Your task to perform on an android device: find which apps use the phone's location Image 0: 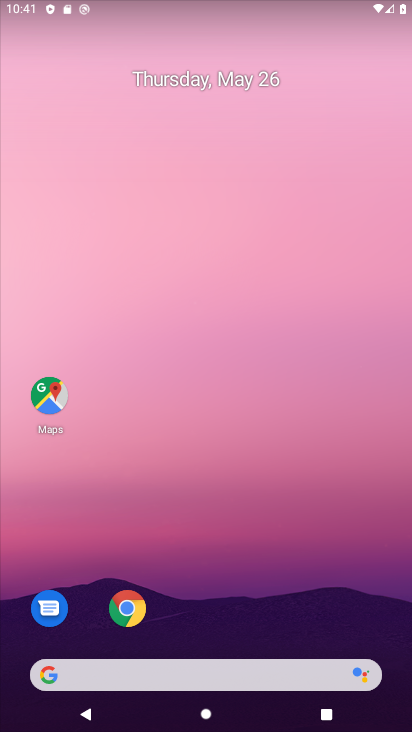
Step 0: drag from (270, 481) to (271, 0)
Your task to perform on an android device: find which apps use the phone's location Image 1: 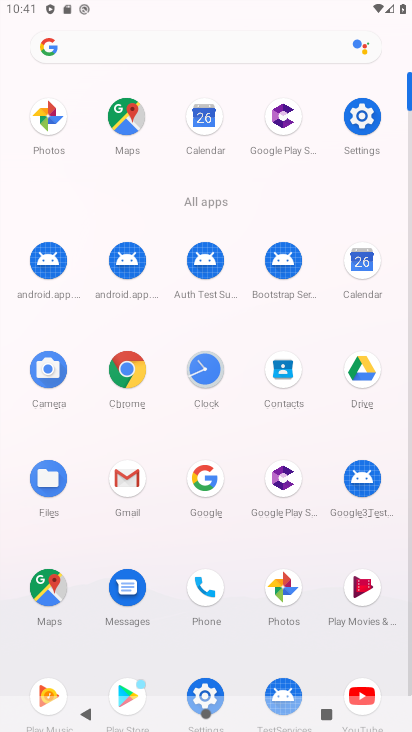
Step 1: click (355, 122)
Your task to perform on an android device: find which apps use the phone's location Image 2: 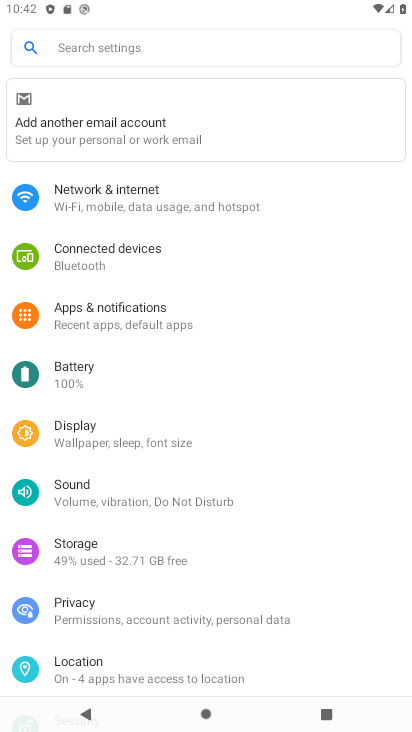
Step 2: drag from (179, 518) to (218, 131)
Your task to perform on an android device: find which apps use the phone's location Image 3: 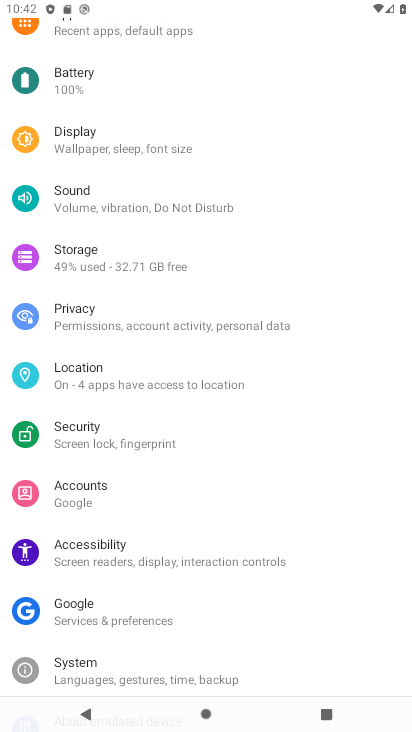
Step 3: click (142, 373)
Your task to perform on an android device: find which apps use the phone's location Image 4: 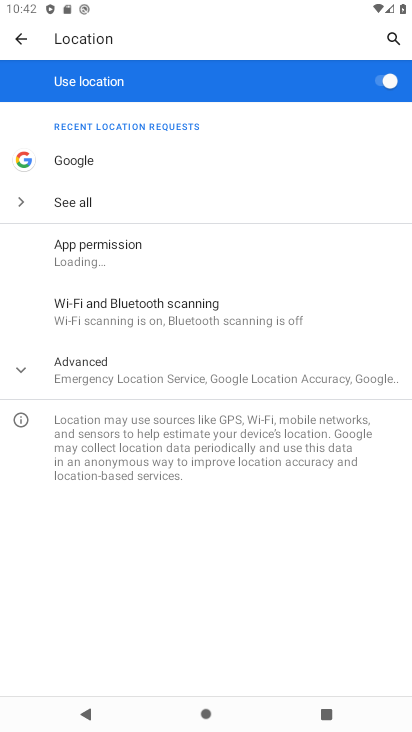
Step 4: click (129, 261)
Your task to perform on an android device: find which apps use the phone's location Image 5: 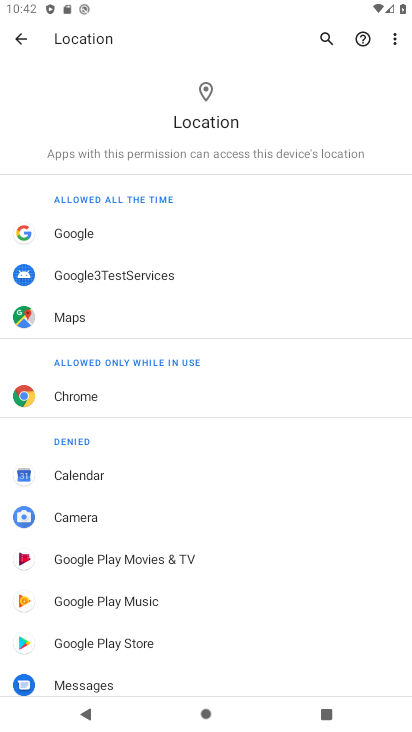
Step 5: task complete